Your task to perform on an android device: Open network settings Image 0: 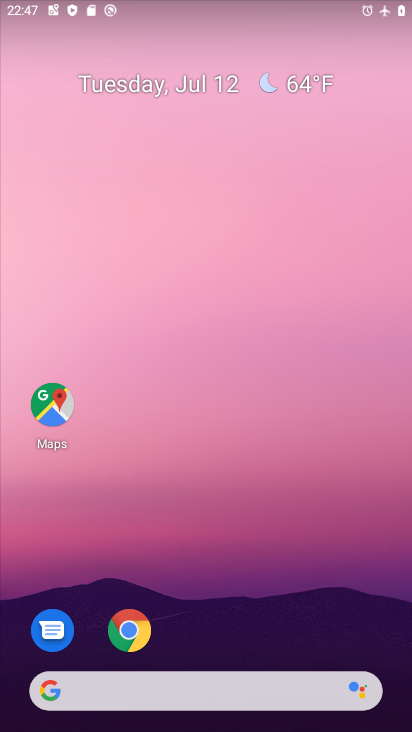
Step 0: drag from (240, 658) to (178, 86)
Your task to perform on an android device: Open network settings Image 1: 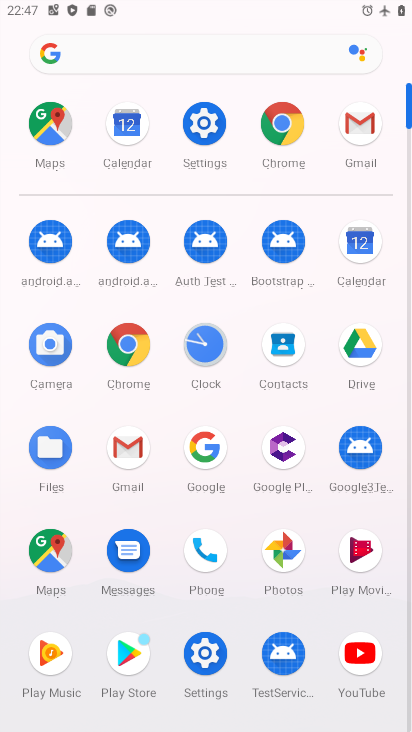
Step 1: click (195, 649)
Your task to perform on an android device: Open network settings Image 2: 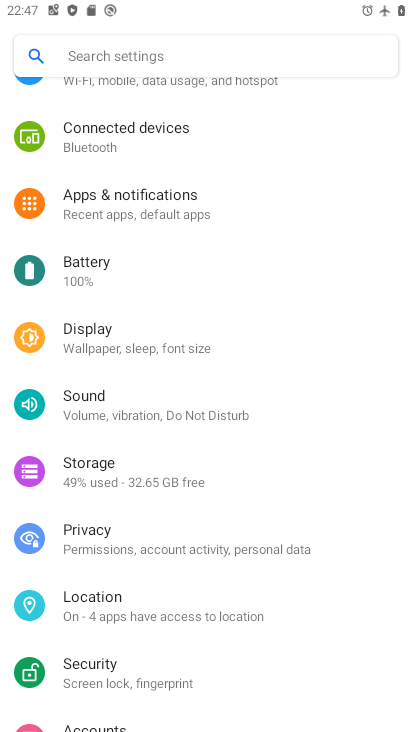
Step 2: drag from (92, 132) to (114, 482)
Your task to perform on an android device: Open network settings Image 3: 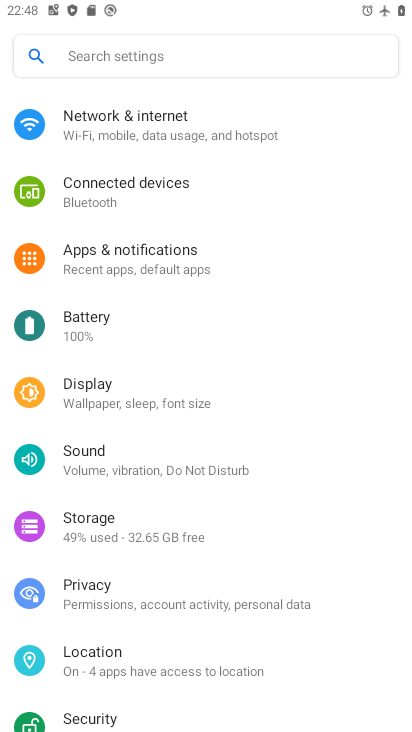
Step 3: click (164, 118)
Your task to perform on an android device: Open network settings Image 4: 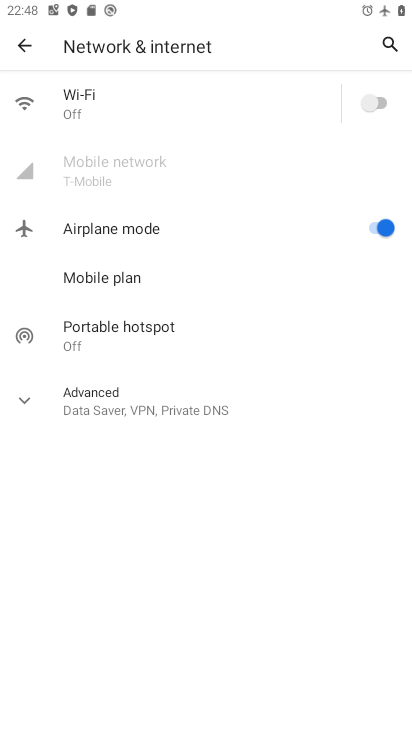
Step 4: task complete